Your task to perform on an android device: View the shopping cart on newegg. Search for "lenovo thinkpad" on newegg, select the first entry, and add it to the cart. Image 0: 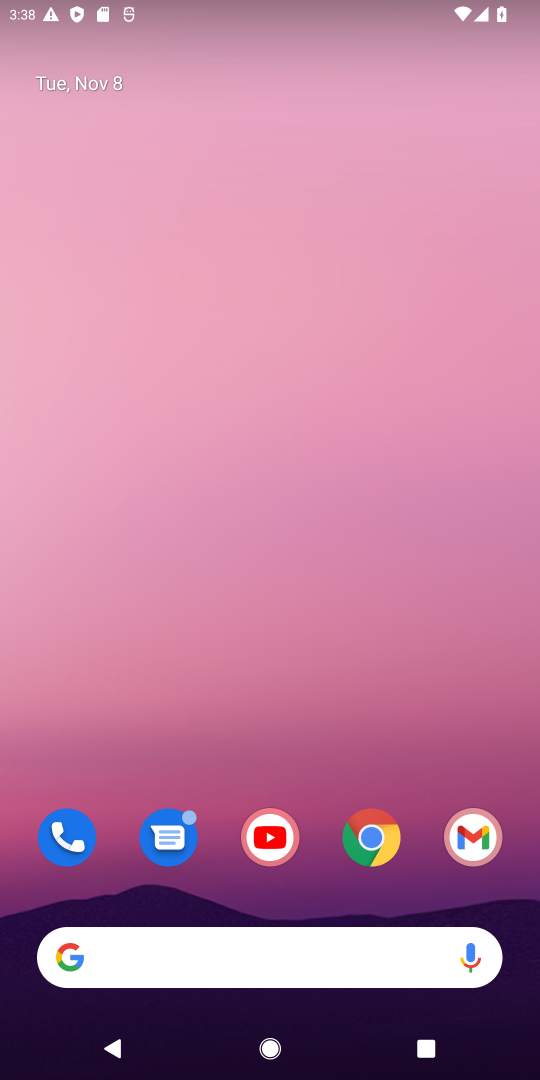
Step 0: click (379, 846)
Your task to perform on an android device: View the shopping cart on newegg. Search for "lenovo thinkpad" on newegg, select the first entry, and add it to the cart. Image 1: 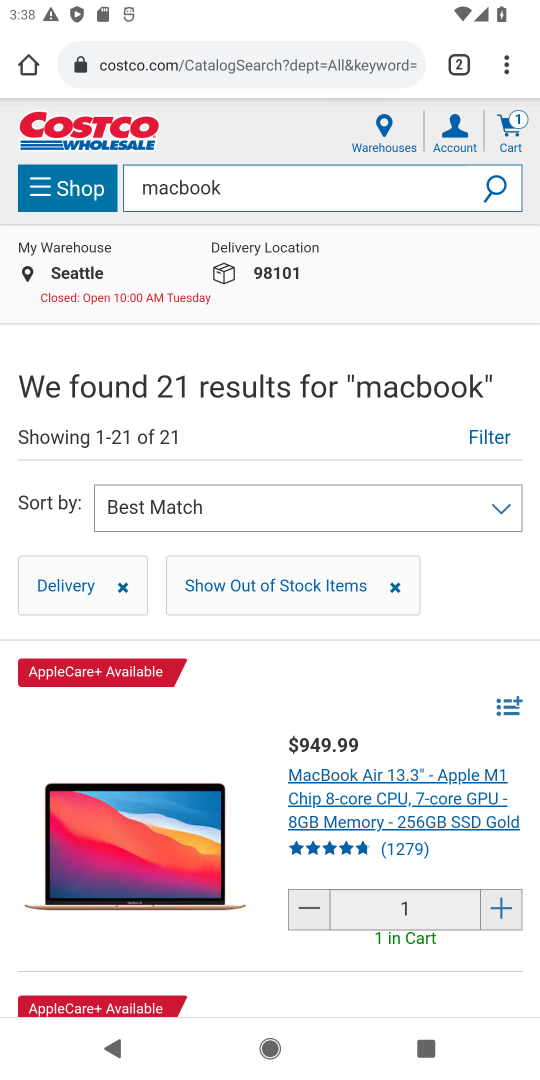
Step 1: click (462, 68)
Your task to perform on an android device: View the shopping cart on newegg. Search for "lenovo thinkpad" on newegg, select the first entry, and add it to the cart. Image 2: 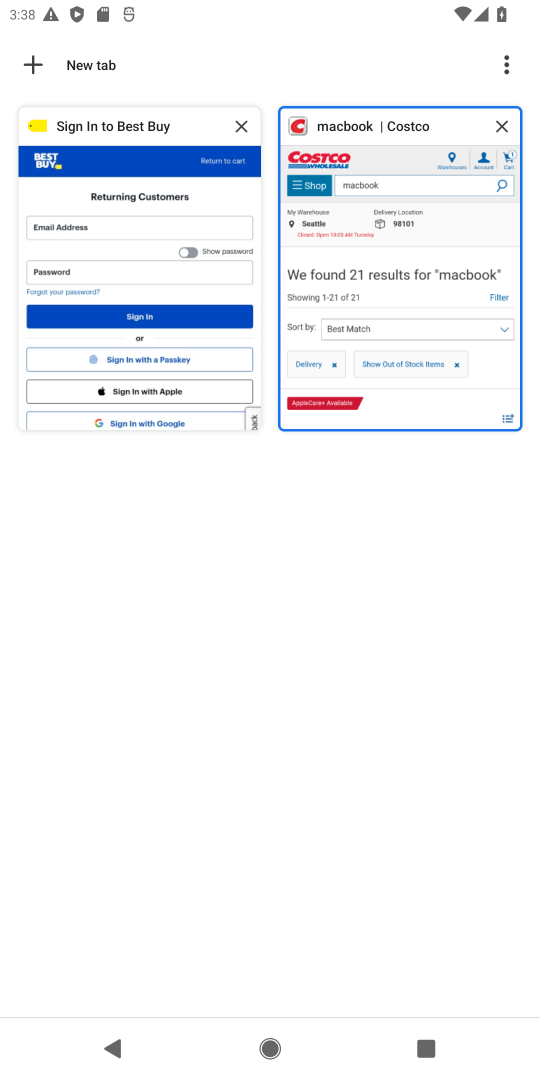
Step 2: click (32, 72)
Your task to perform on an android device: View the shopping cart on newegg. Search for "lenovo thinkpad" on newegg, select the first entry, and add it to the cart. Image 3: 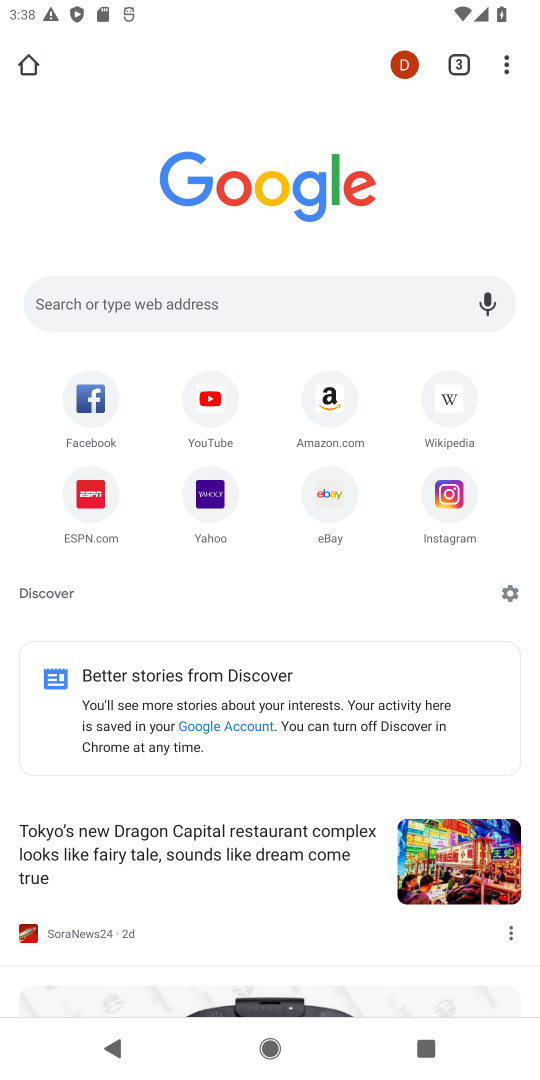
Step 3: click (209, 301)
Your task to perform on an android device: View the shopping cart on newegg. Search for "lenovo thinkpad" on newegg, select the first entry, and add it to the cart. Image 4: 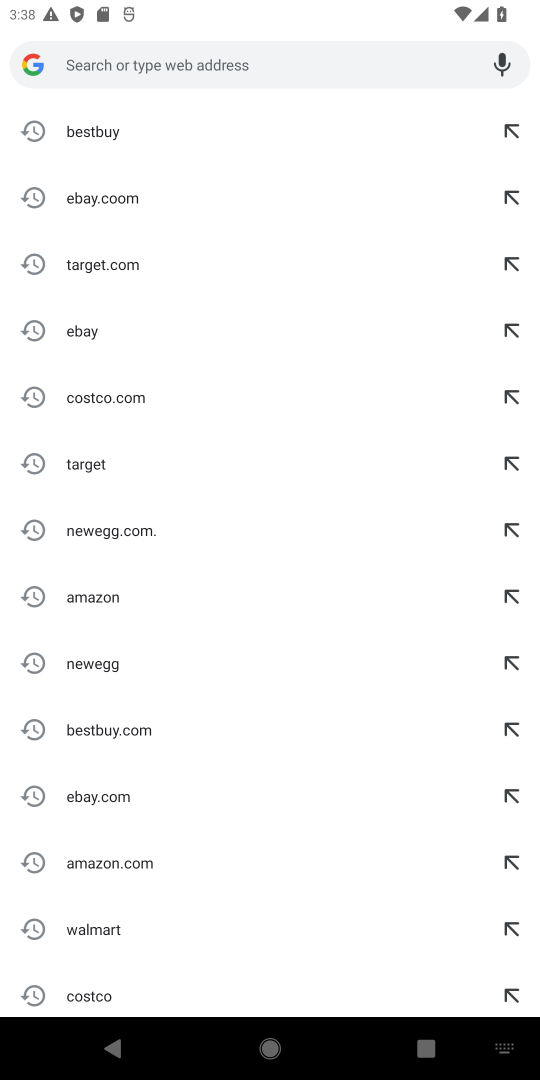
Step 4: click (104, 534)
Your task to perform on an android device: View the shopping cart on newegg. Search for "lenovo thinkpad" on newegg, select the first entry, and add it to the cart. Image 5: 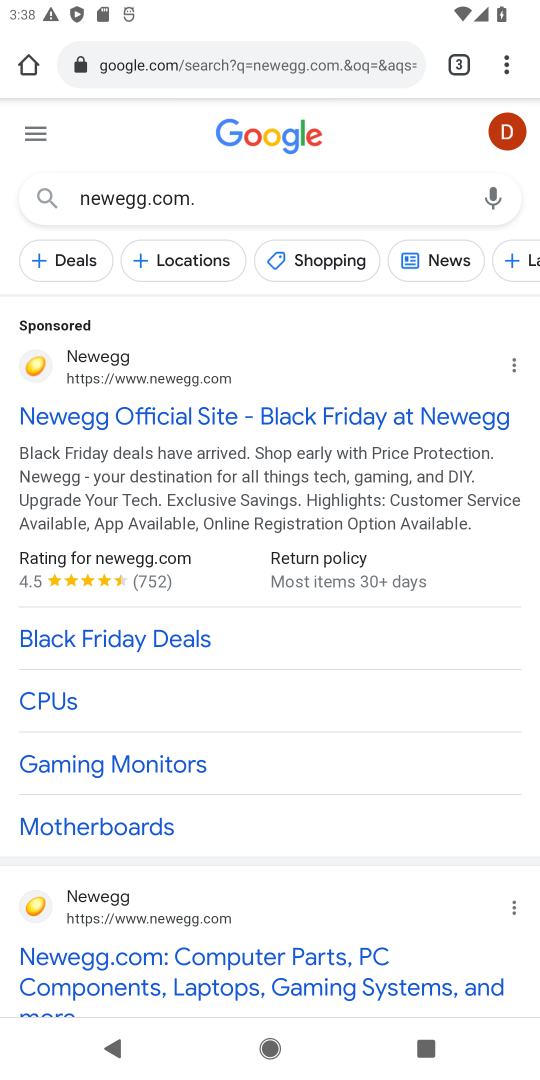
Step 5: drag from (227, 764) to (298, 243)
Your task to perform on an android device: View the shopping cart on newegg. Search for "lenovo thinkpad" on newegg, select the first entry, and add it to the cart. Image 6: 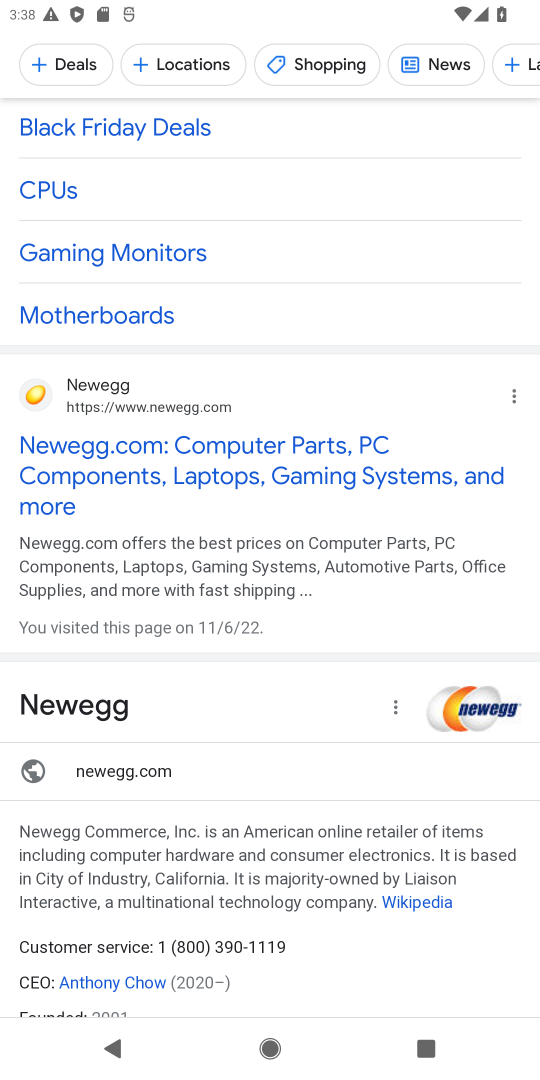
Step 6: drag from (388, 947) to (430, 432)
Your task to perform on an android device: View the shopping cart on newegg. Search for "lenovo thinkpad" on newegg, select the first entry, and add it to the cart. Image 7: 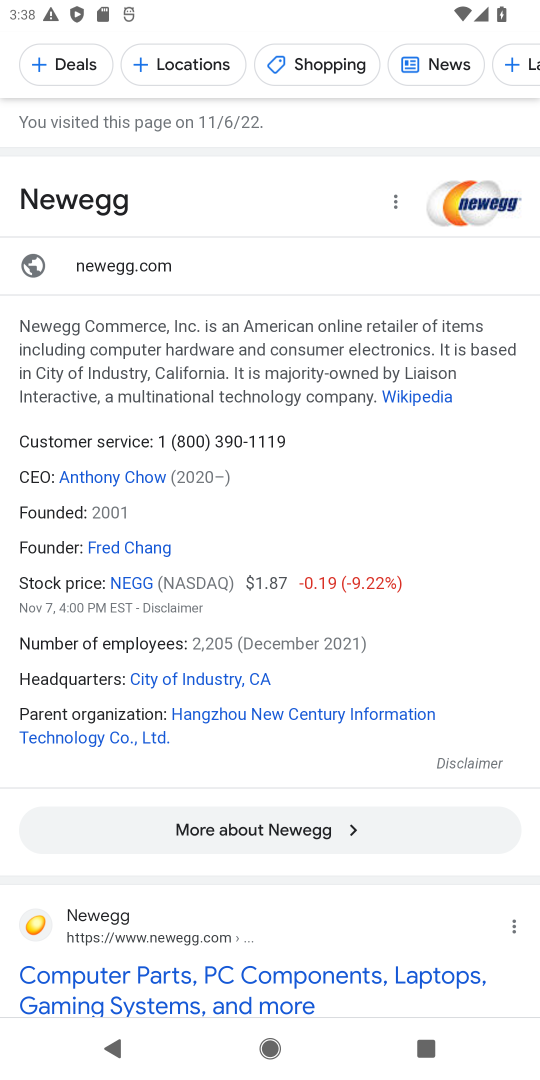
Step 7: drag from (408, 901) to (404, 373)
Your task to perform on an android device: View the shopping cart on newegg. Search for "lenovo thinkpad" on newegg, select the first entry, and add it to the cart. Image 8: 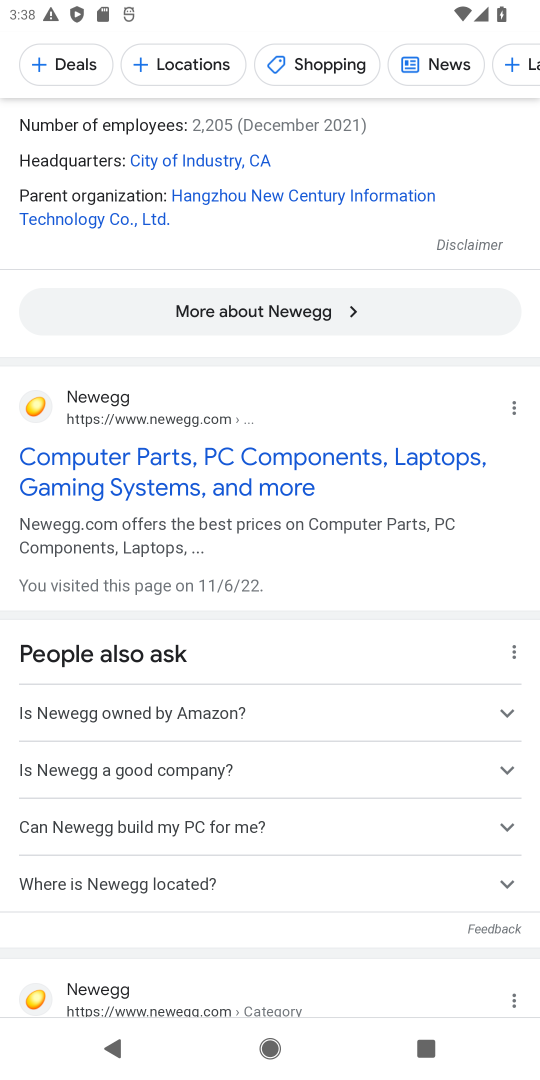
Step 8: click (78, 456)
Your task to perform on an android device: View the shopping cart on newegg. Search for "lenovo thinkpad" on newegg, select the first entry, and add it to the cart. Image 9: 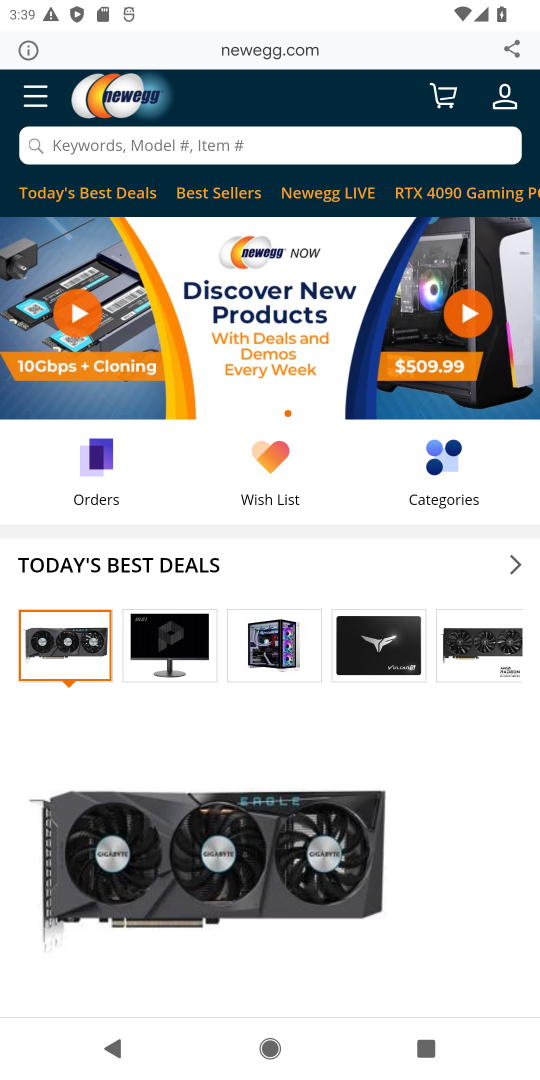
Step 9: click (89, 136)
Your task to perform on an android device: View the shopping cart on newegg. Search for "lenovo thinkpad" on newegg, select the first entry, and add it to the cart. Image 10: 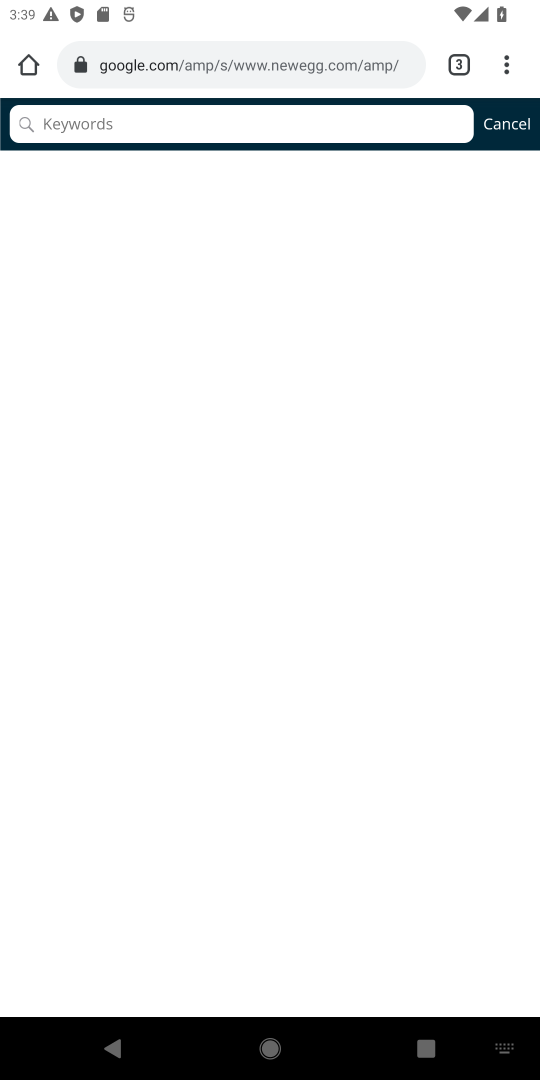
Step 10: type "lenovo thinkpad"
Your task to perform on an android device: View the shopping cart on newegg. Search for "lenovo thinkpad" on newegg, select the first entry, and add it to the cart. Image 11: 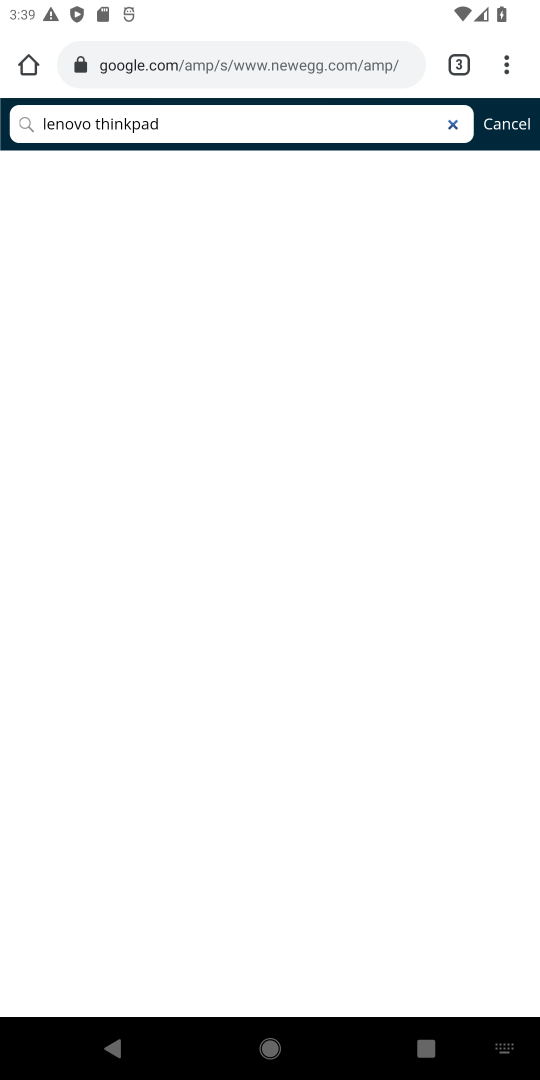
Step 11: press enter
Your task to perform on an android device: View the shopping cart on newegg. Search for "lenovo thinkpad" on newegg, select the first entry, and add it to the cart. Image 12: 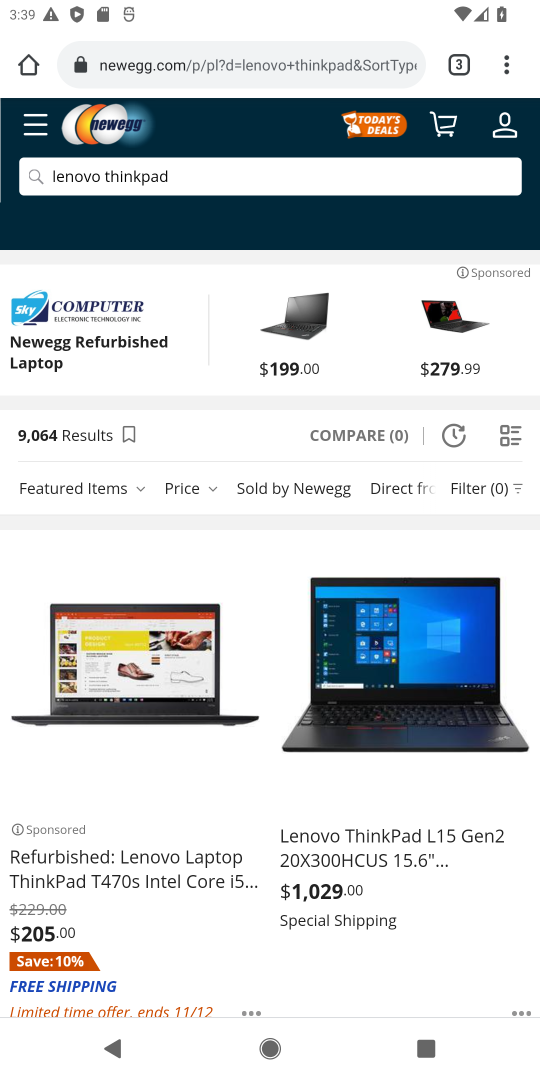
Step 12: click (371, 850)
Your task to perform on an android device: View the shopping cart on newegg. Search for "lenovo thinkpad" on newegg, select the first entry, and add it to the cart. Image 13: 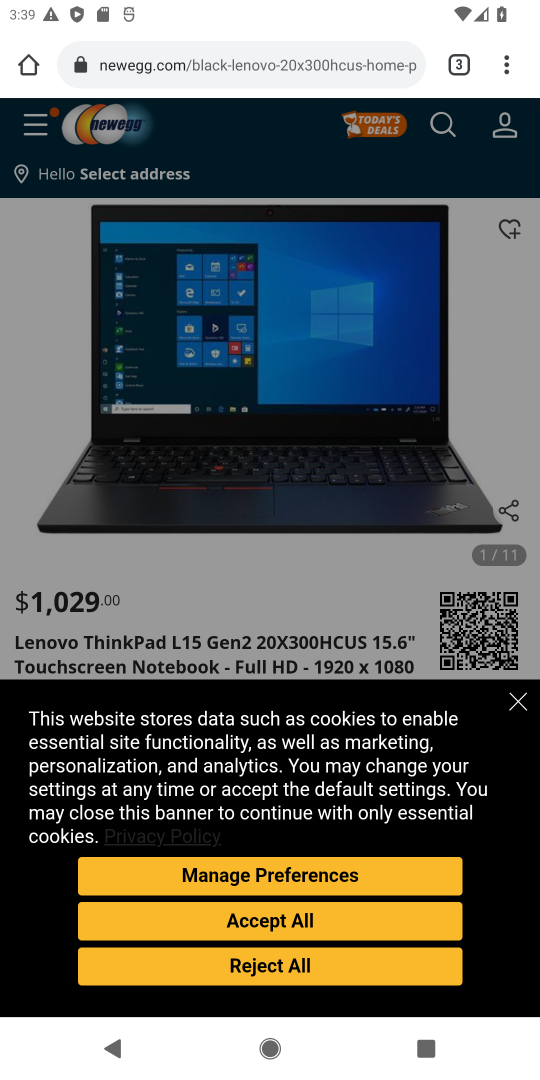
Step 13: click (310, 916)
Your task to perform on an android device: View the shopping cart on newegg. Search for "lenovo thinkpad" on newegg, select the first entry, and add it to the cart. Image 14: 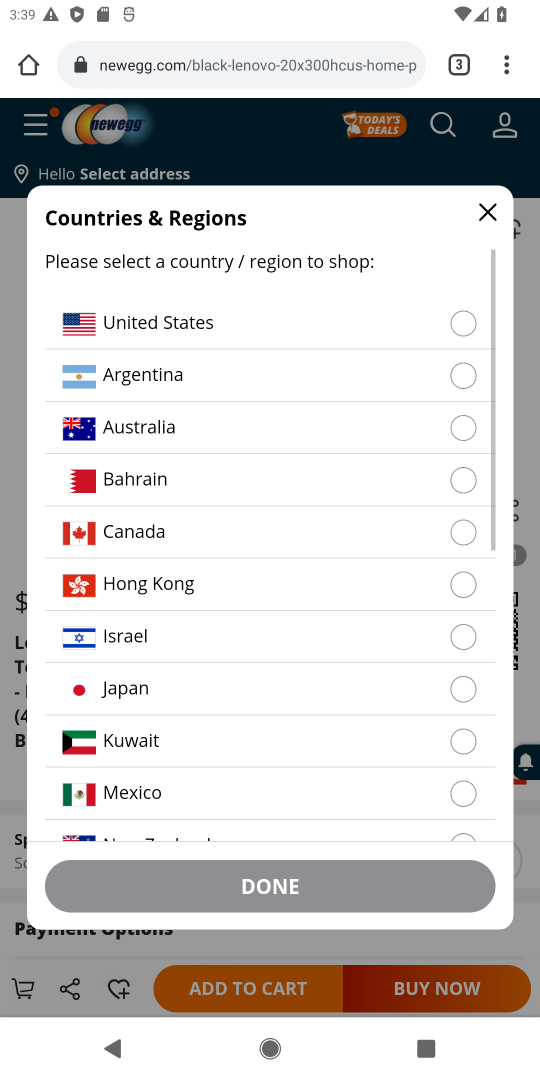
Step 14: click (465, 318)
Your task to perform on an android device: View the shopping cart on newegg. Search for "lenovo thinkpad" on newegg, select the first entry, and add it to the cart. Image 15: 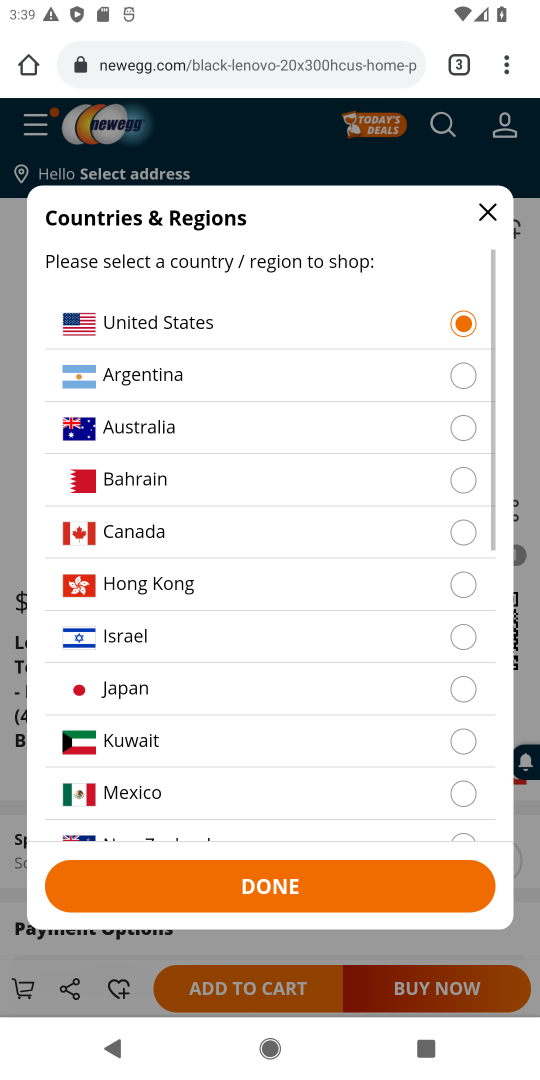
Step 15: click (326, 882)
Your task to perform on an android device: View the shopping cart on newegg. Search for "lenovo thinkpad" on newegg, select the first entry, and add it to the cart. Image 16: 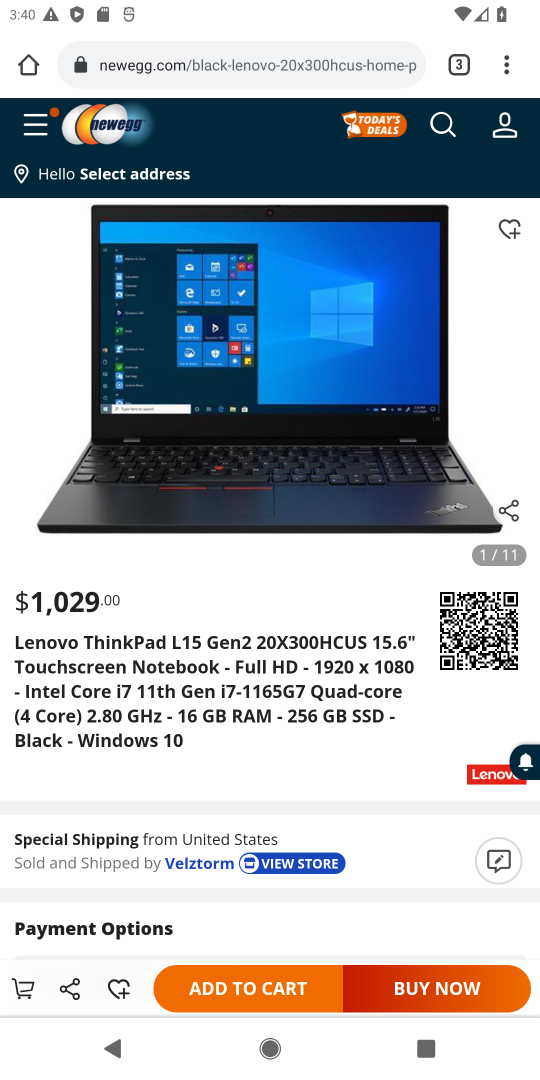
Step 16: click (266, 990)
Your task to perform on an android device: View the shopping cart on newegg. Search for "lenovo thinkpad" on newegg, select the first entry, and add it to the cart. Image 17: 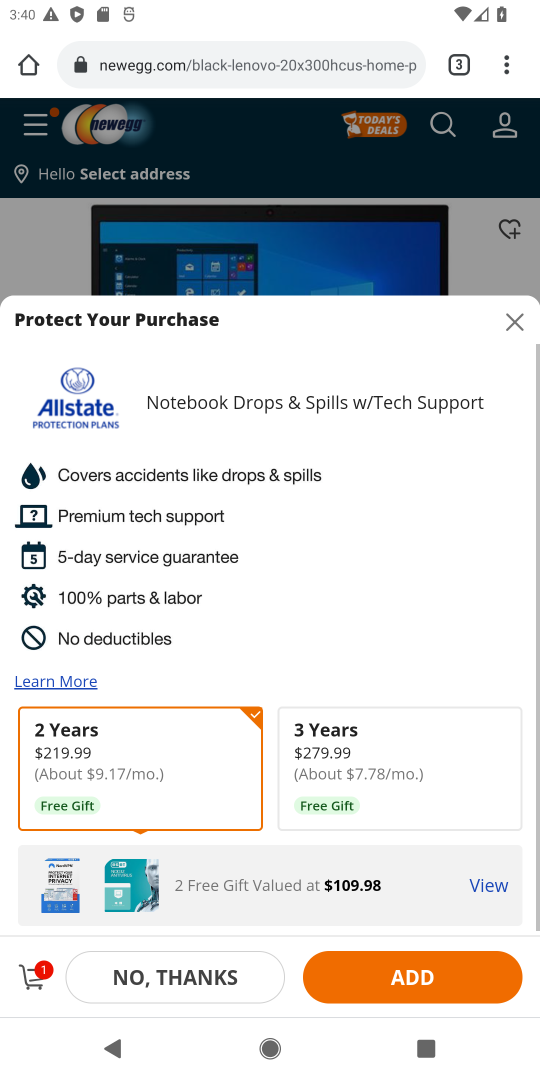
Step 17: task complete